Your task to perform on an android device: Search for seafood restaurants on Google Maps Image 0: 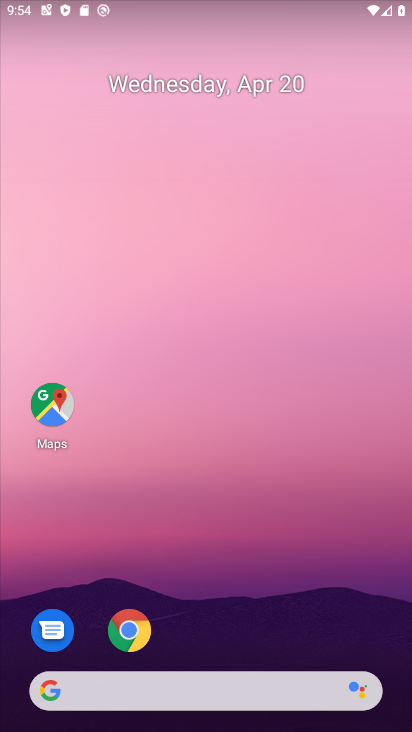
Step 0: drag from (303, 539) to (329, 86)
Your task to perform on an android device: Search for seafood restaurants on Google Maps Image 1: 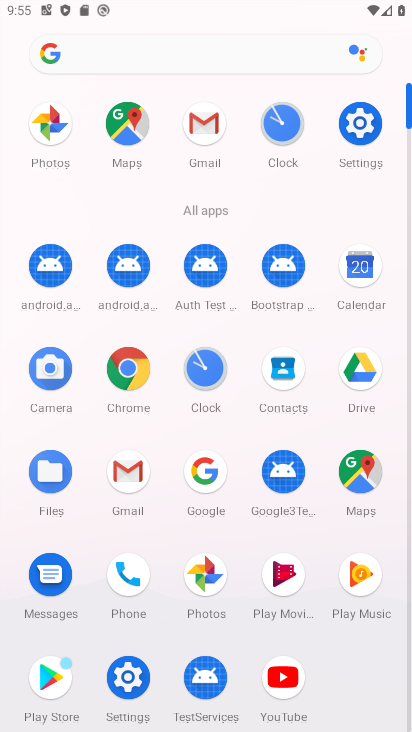
Step 1: click (123, 127)
Your task to perform on an android device: Search for seafood restaurants on Google Maps Image 2: 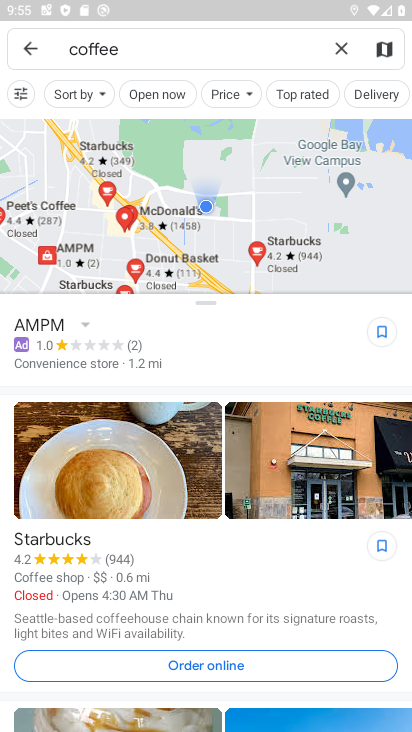
Step 2: click (346, 44)
Your task to perform on an android device: Search for seafood restaurants on Google Maps Image 3: 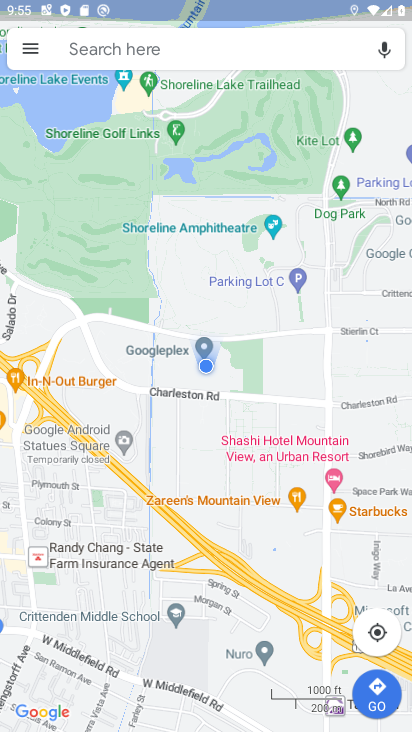
Step 3: click (267, 54)
Your task to perform on an android device: Search for seafood restaurants on Google Maps Image 4: 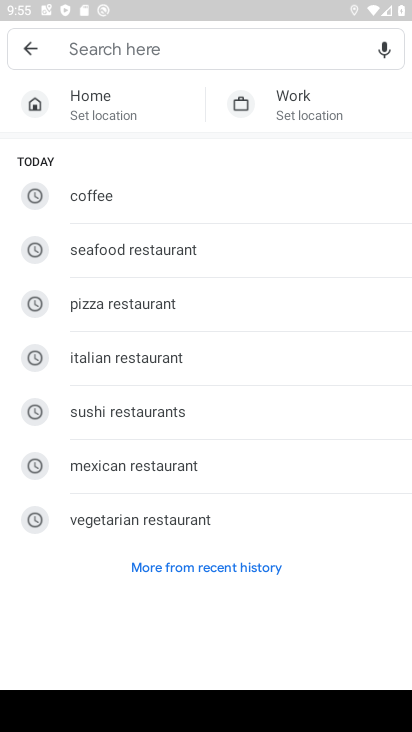
Step 4: click (188, 249)
Your task to perform on an android device: Search for seafood restaurants on Google Maps Image 5: 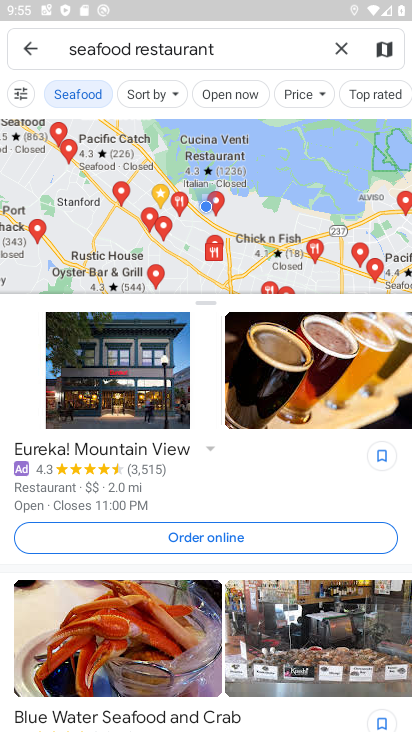
Step 5: task complete